Your task to perform on an android device: Open Google Chrome Image 0: 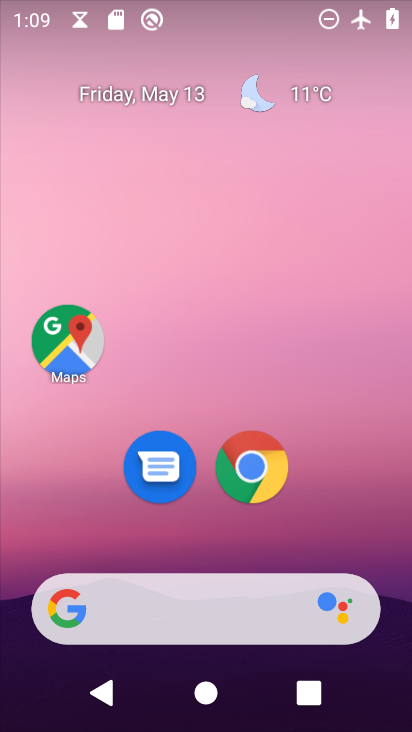
Step 0: click (261, 461)
Your task to perform on an android device: Open Google Chrome Image 1: 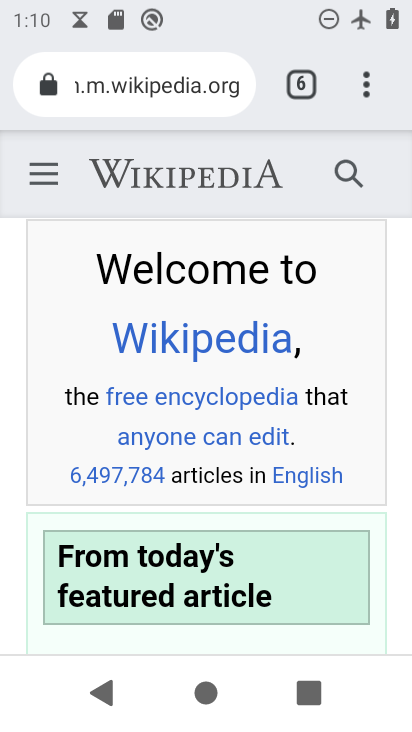
Step 1: task complete